Your task to perform on an android device: set the stopwatch Image 0: 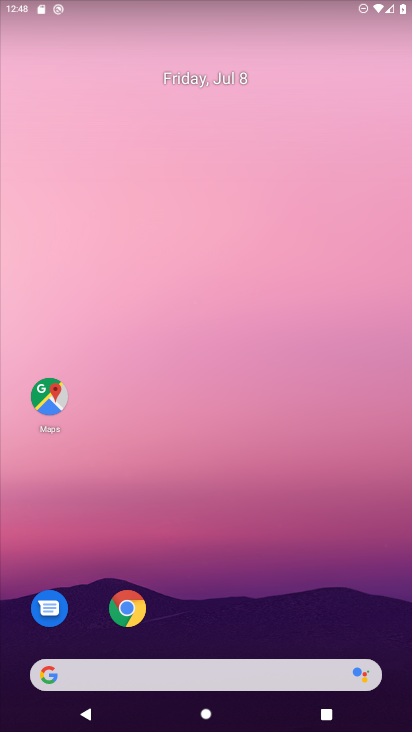
Step 0: drag from (243, 696) to (241, 273)
Your task to perform on an android device: set the stopwatch Image 1: 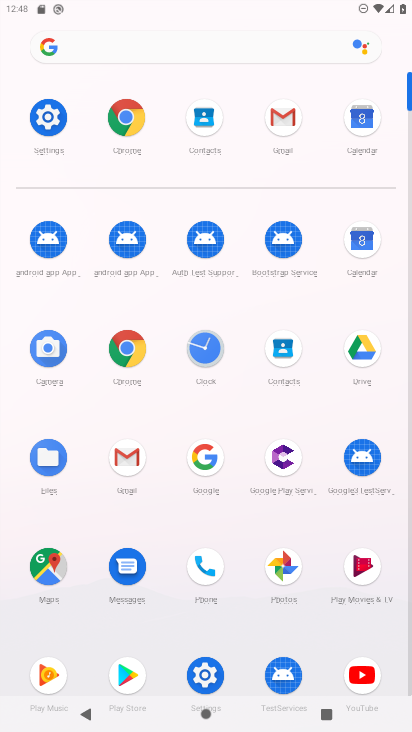
Step 1: click (198, 350)
Your task to perform on an android device: set the stopwatch Image 2: 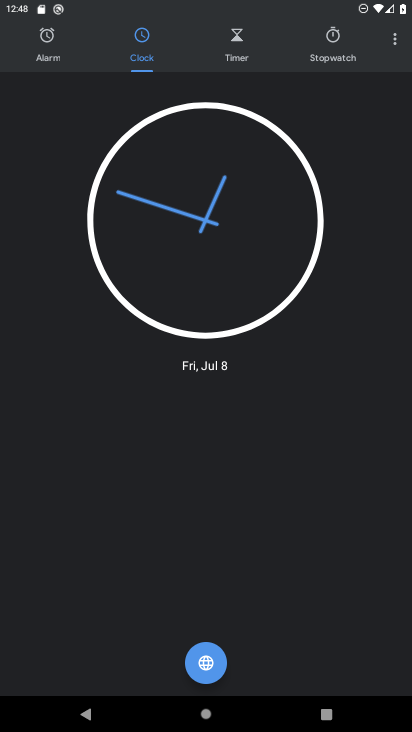
Step 2: click (328, 46)
Your task to perform on an android device: set the stopwatch Image 3: 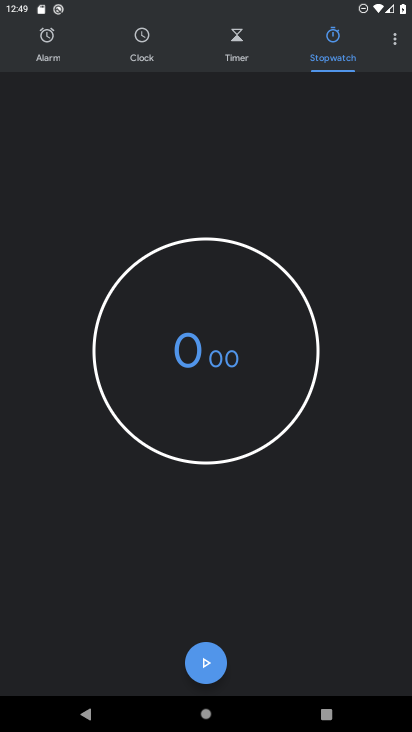
Step 3: click (196, 363)
Your task to perform on an android device: set the stopwatch Image 4: 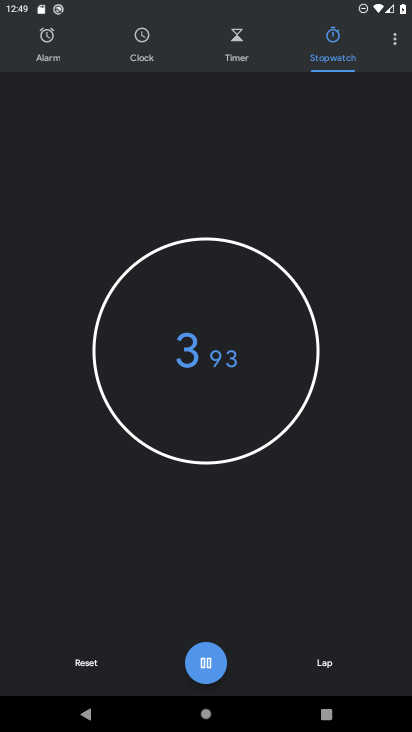
Step 4: type "8787"
Your task to perform on an android device: set the stopwatch Image 5: 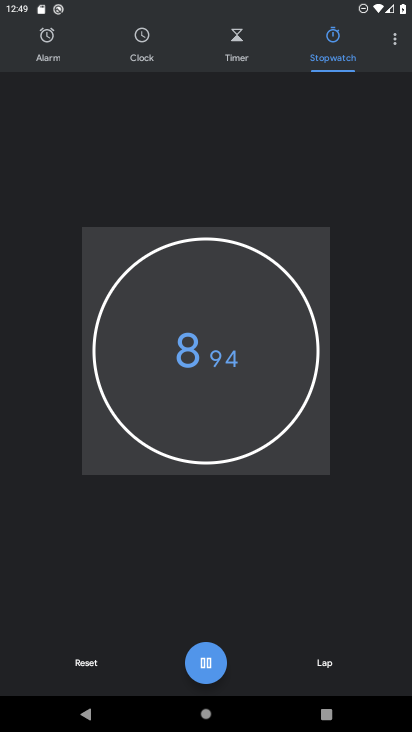
Step 5: task complete